Your task to perform on an android device: Open Yahoo.com Image 0: 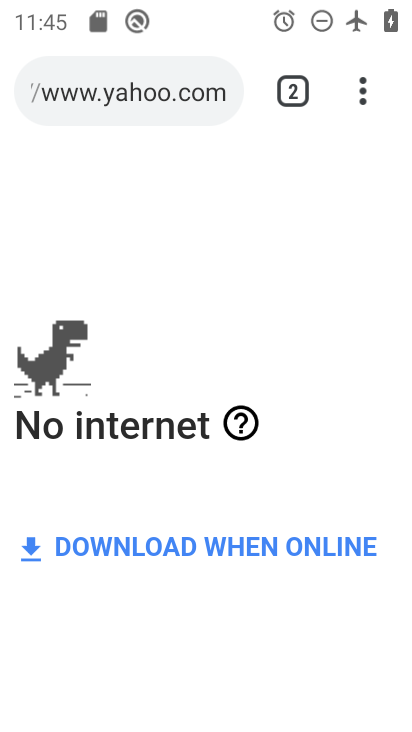
Step 0: press home button
Your task to perform on an android device: Open Yahoo.com Image 1: 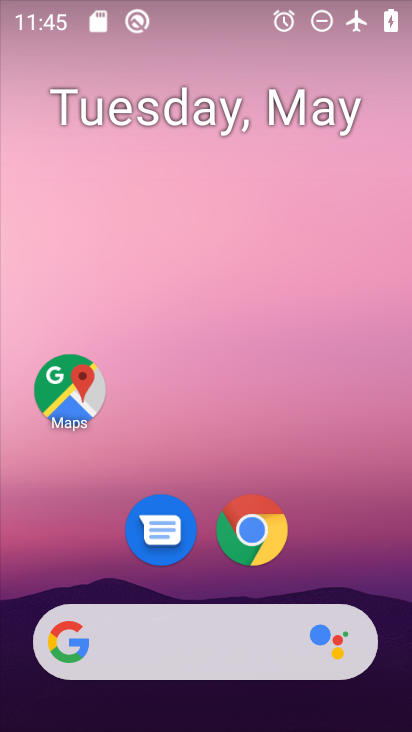
Step 1: click (255, 528)
Your task to perform on an android device: Open Yahoo.com Image 2: 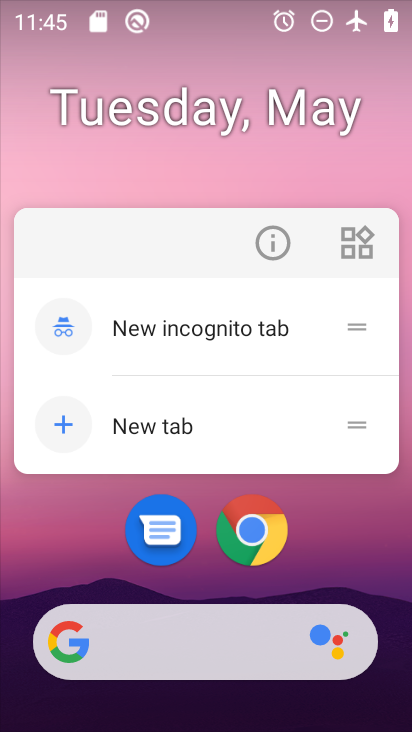
Step 2: click (255, 536)
Your task to perform on an android device: Open Yahoo.com Image 3: 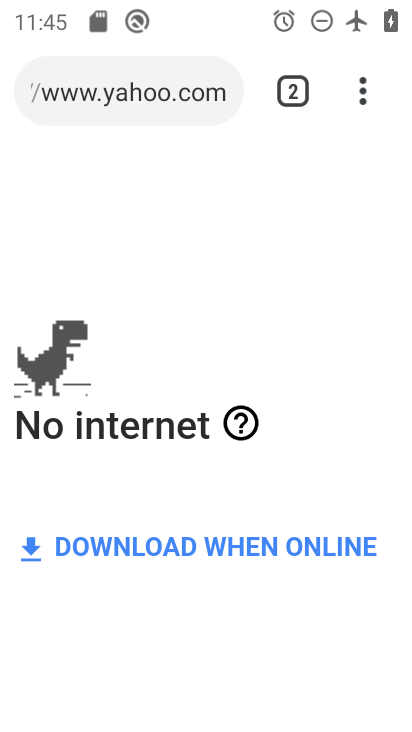
Step 3: task complete